Your task to perform on an android device: Open Google Chrome and click the shortcut for Amazon.com Image 0: 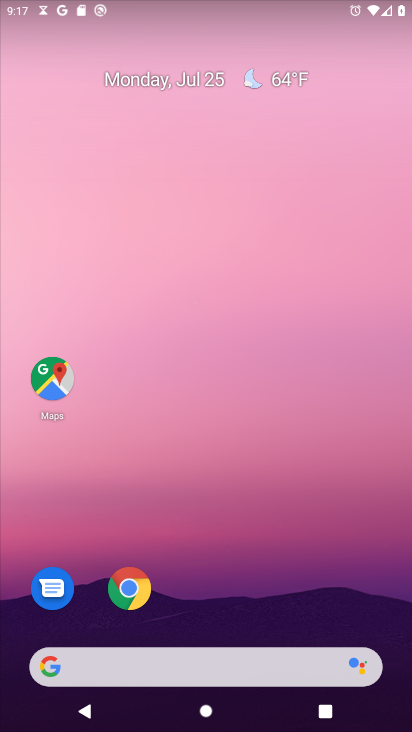
Step 0: drag from (206, 665) to (206, 206)
Your task to perform on an android device: Open Google Chrome and click the shortcut for Amazon.com Image 1: 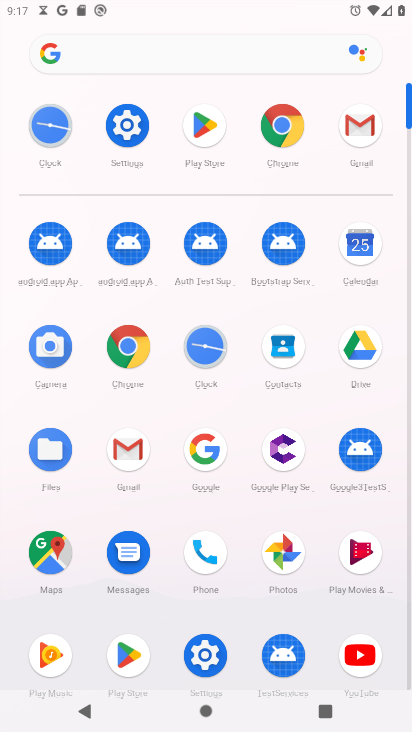
Step 1: click (272, 150)
Your task to perform on an android device: Open Google Chrome and click the shortcut for Amazon.com Image 2: 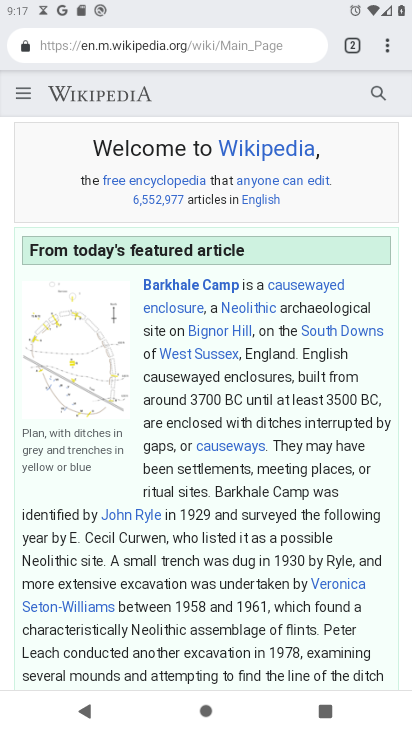
Step 2: click (354, 49)
Your task to perform on an android device: Open Google Chrome and click the shortcut for Amazon.com Image 3: 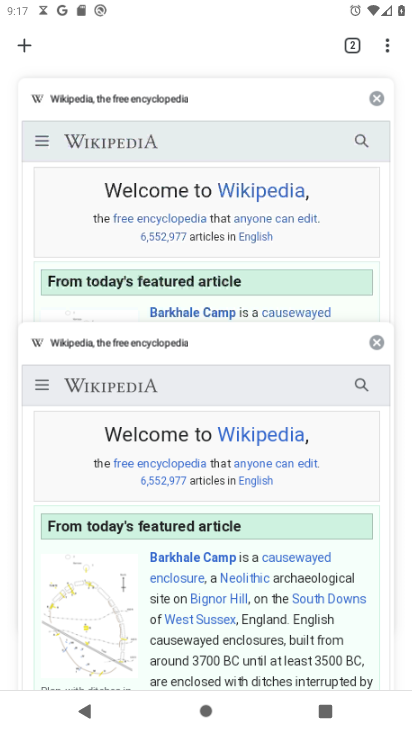
Step 3: click (14, 45)
Your task to perform on an android device: Open Google Chrome and click the shortcut for Amazon.com Image 4: 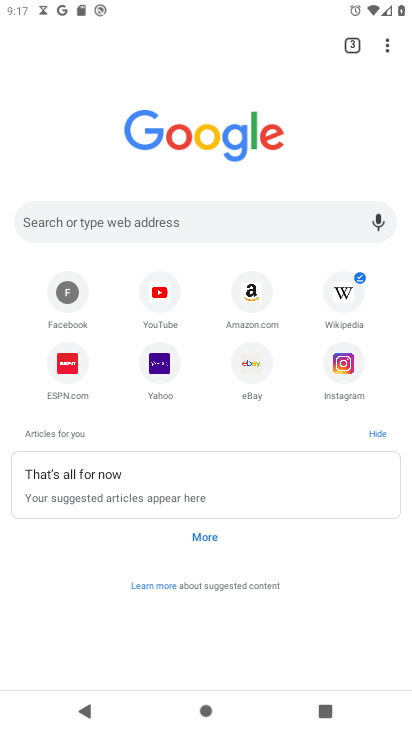
Step 4: click (262, 307)
Your task to perform on an android device: Open Google Chrome and click the shortcut for Amazon.com Image 5: 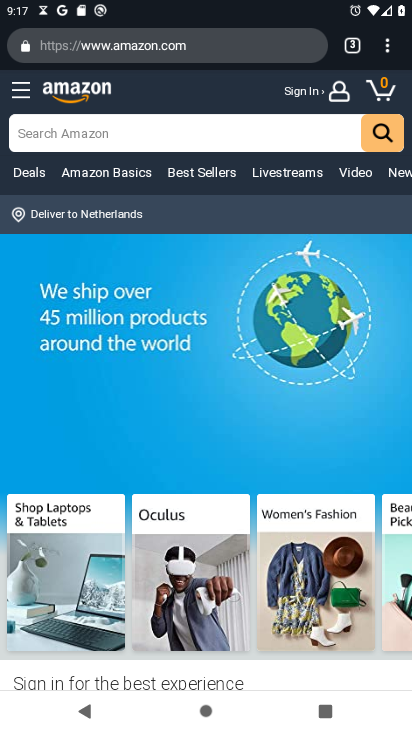
Step 5: task complete